Your task to perform on an android device: Search for sushi restaurants on Maps Image 0: 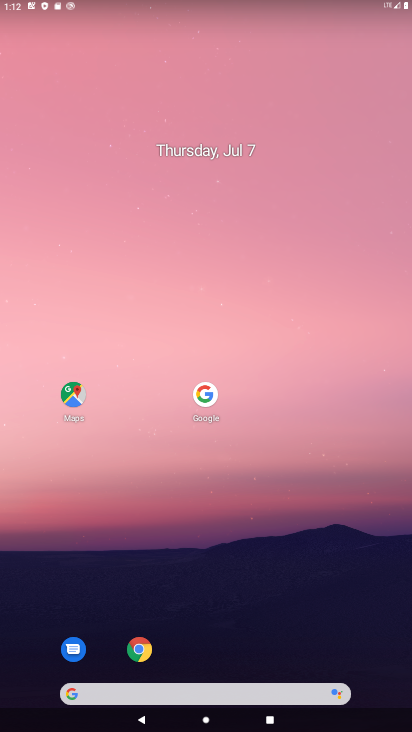
Step 0: click (71, 393)
Your task to perform on an android device: Search for sushi restaurants on Maps Image 1: 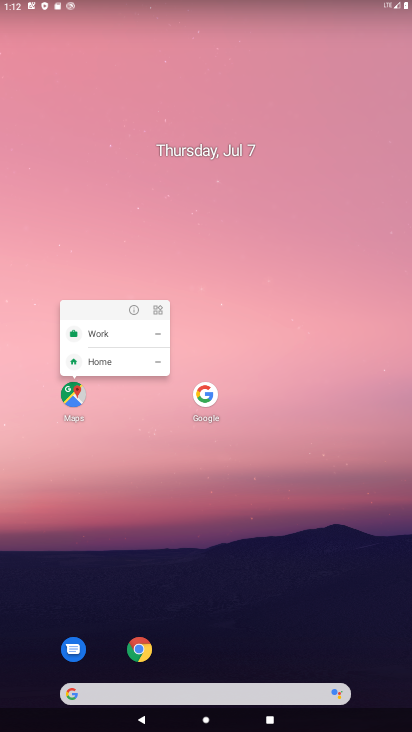
Step 1: click (73, 391)
Your task to perform on an android device: Search for sushi restaurants on Maps Image 2: 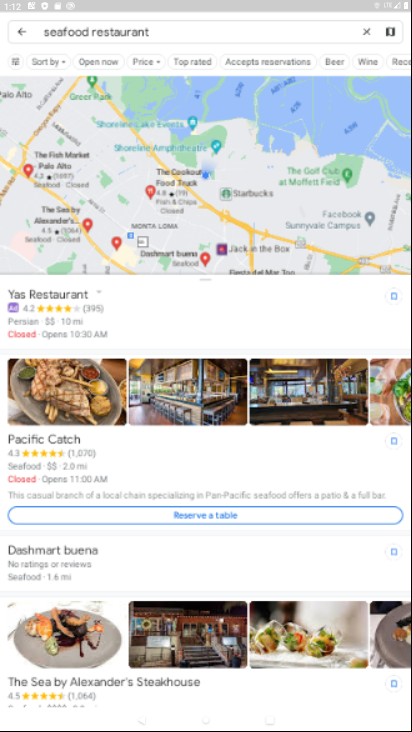
Step 2: click (365, 35)
Your task to perform on an android device: Search for sushi restaurants on Maps Image 3: 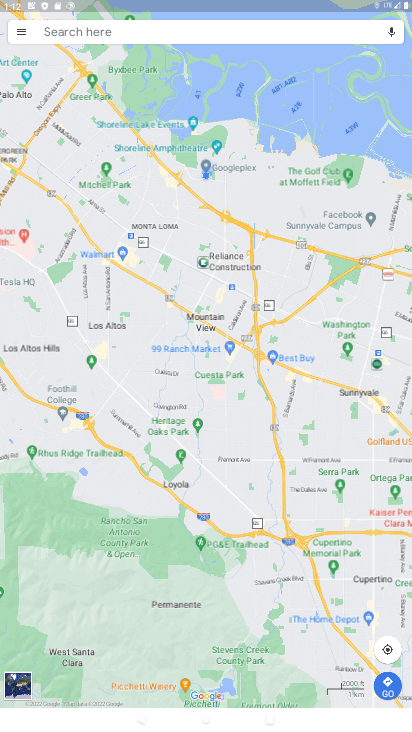
Step 3: click (114, 31)
Your task to perform on an android device: Search for sushi restaurants on Maps Image 4: 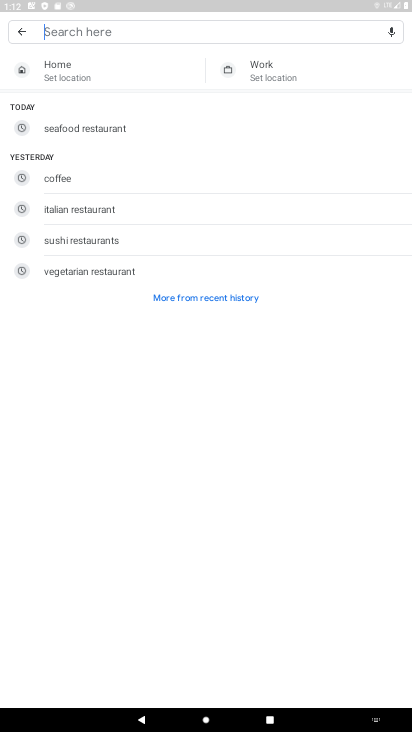
Step 4: type "sushi restaurants"
Your task to perform on an android device: Search for sushi restaurants on Maps Image 5: 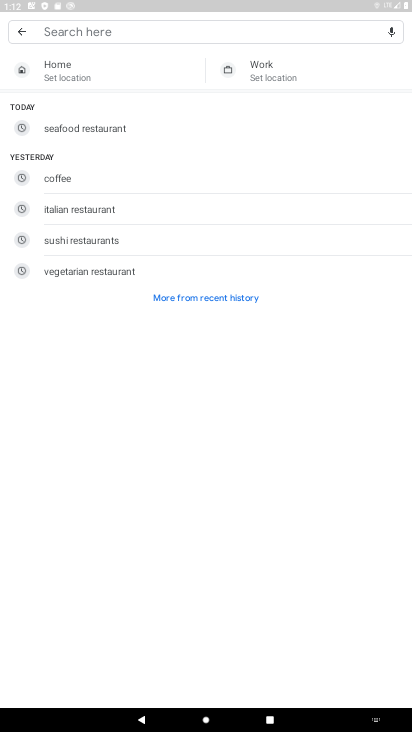
Step 5: click (100, 26)
Your task to perform on an android device: Search for sushi restaurants on Maps Image 6: 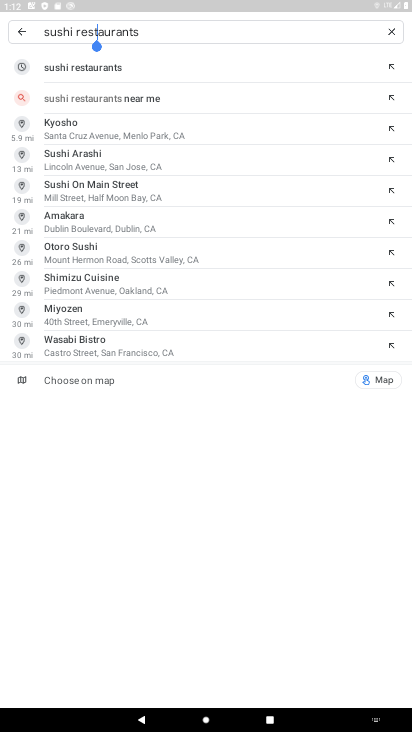
Step 6: click (112, 71)
Your task to perform on an android device: Search for sushi restaurants on Maps Image 7: 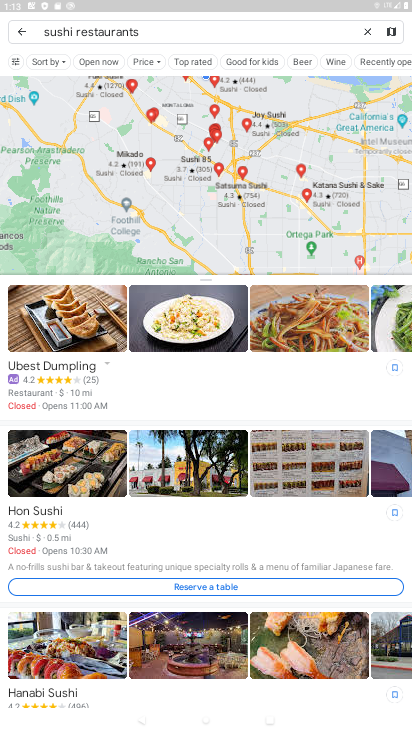
Step 7: task complete